Your task to perform on an android device: turn on notifications settings in the gmail app Image 0: 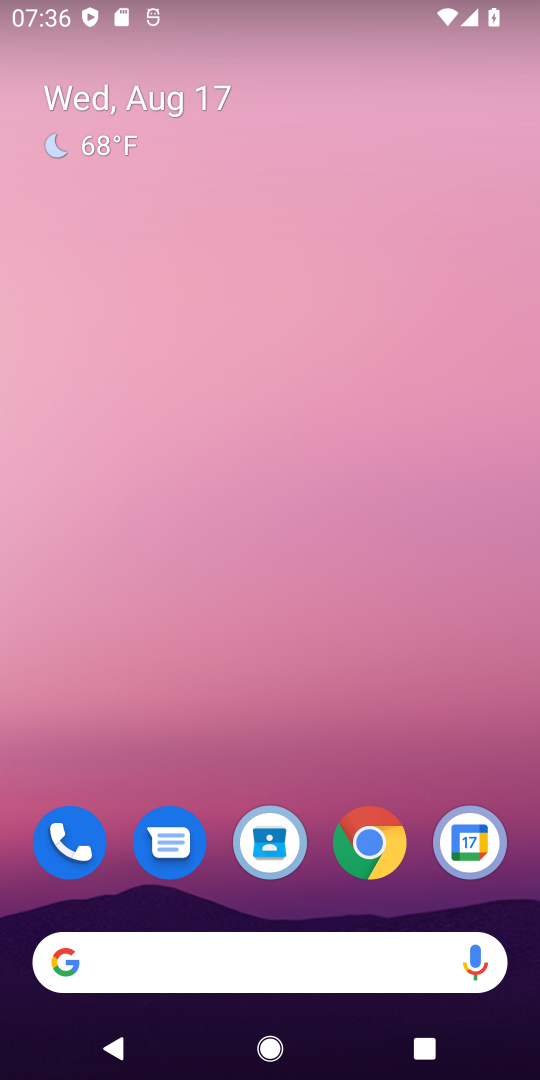
Step 0: drag from (330, 666) to (355, 0)
Your task to perform on an android device: turn on notifications settings in the gmail app Image 1: 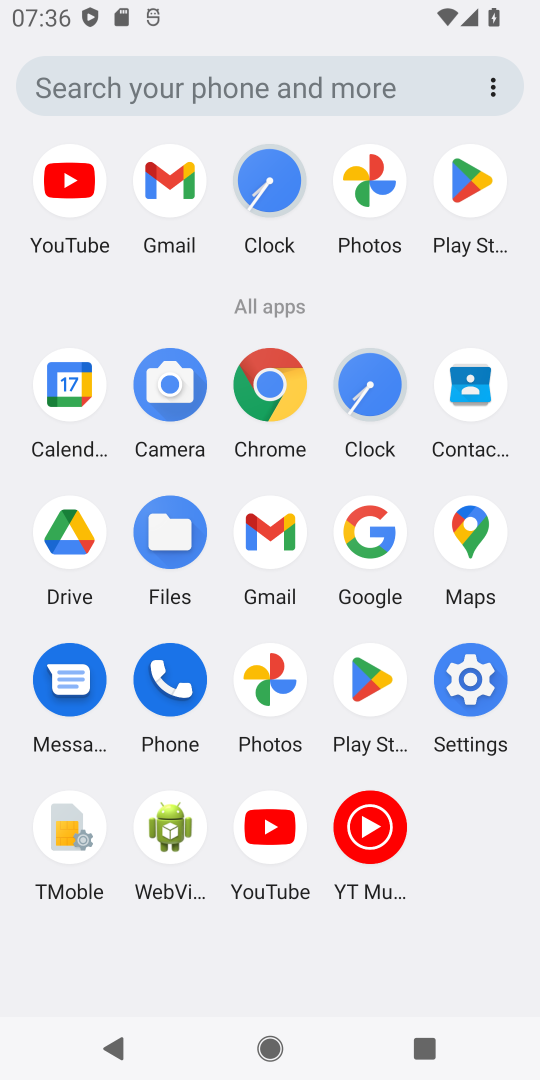
Step 1: click (167, 184)
Your task to perform on an android device: turn on notifications settings in the gmail app Image 2: 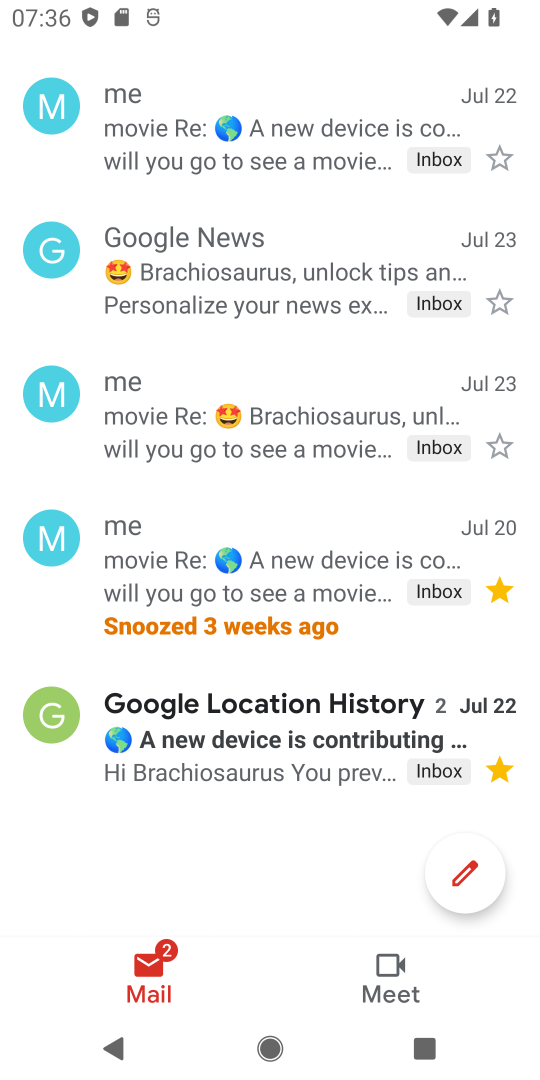
Step 2: drag from (244, 296) to (240, 699)
Your task to perform on an android device: turn on notifications settings in the gmail app Image 3: 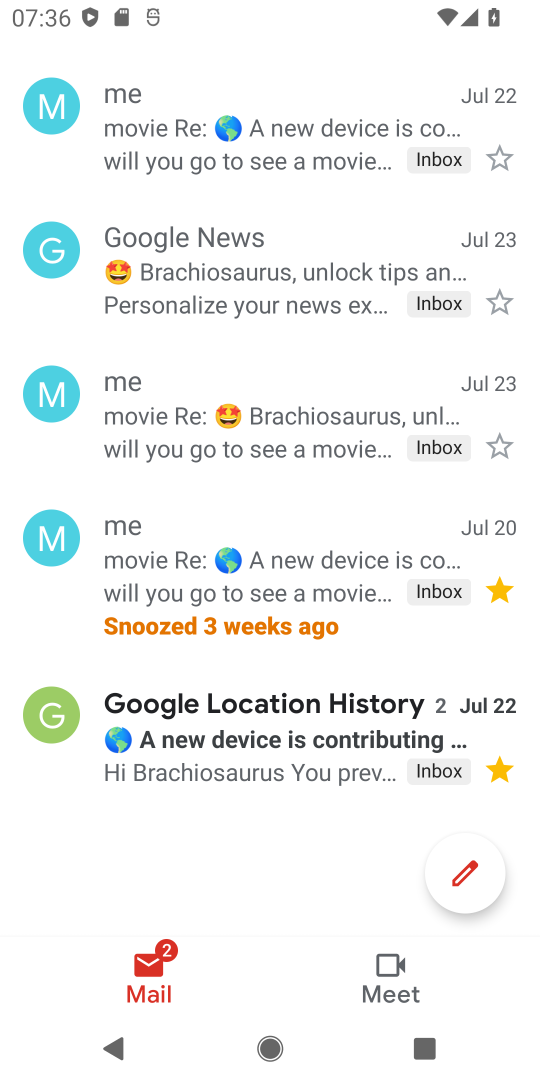
Step 3: drag from (308, 453) to (307, 848)
Your task to perform on an android device: turn on notifications settings in the gmail app Image 4: 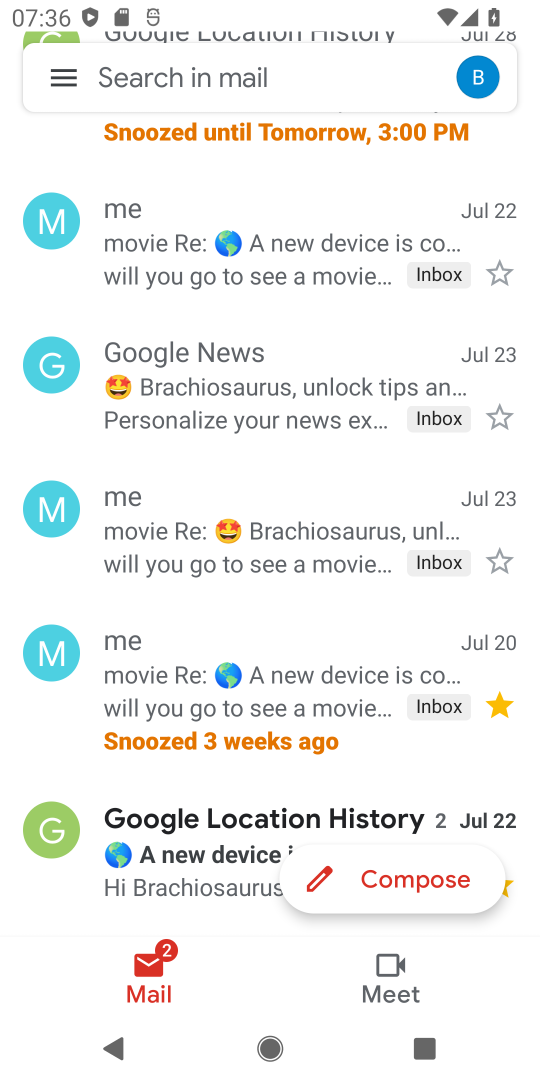
Step 4: drag from (298, 315) to (304, 846)
Your task to perform on an android device: turn on notifications settings in the gmail app Image 5: 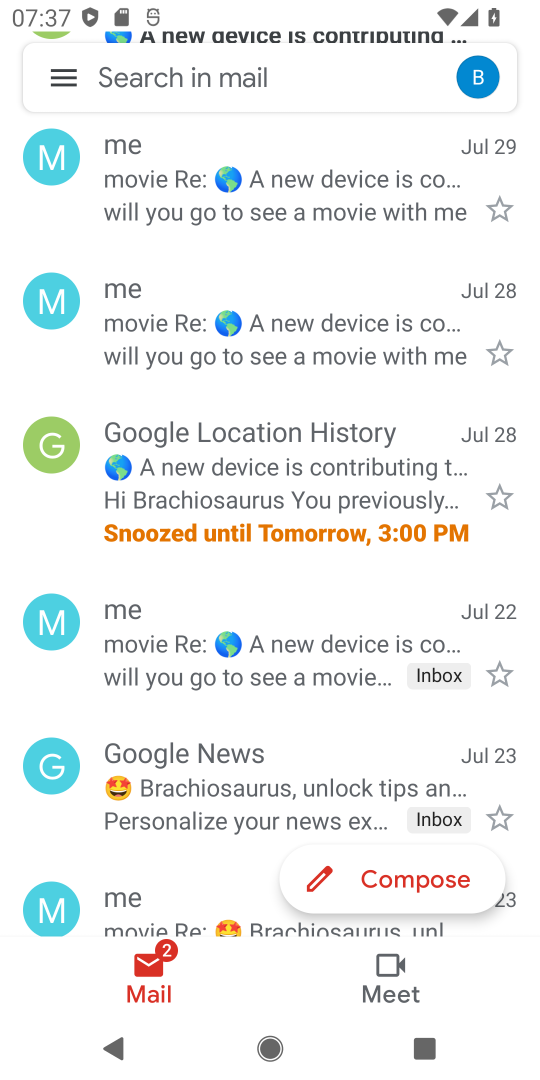
Step 5: drag from (266, 246) to (299, 747)
Your task to perform on an android device: turn on notifications settings in the gmail app Image 6: 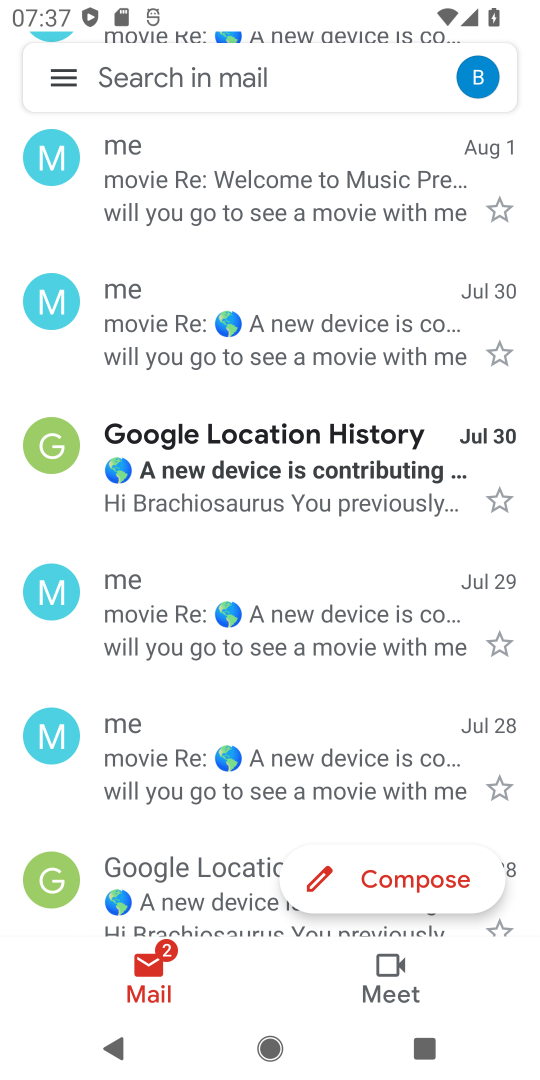
Step 6: click (62, 73)
Your task to perform on an android device: turn on notifications settings in the gmail app Image 7: 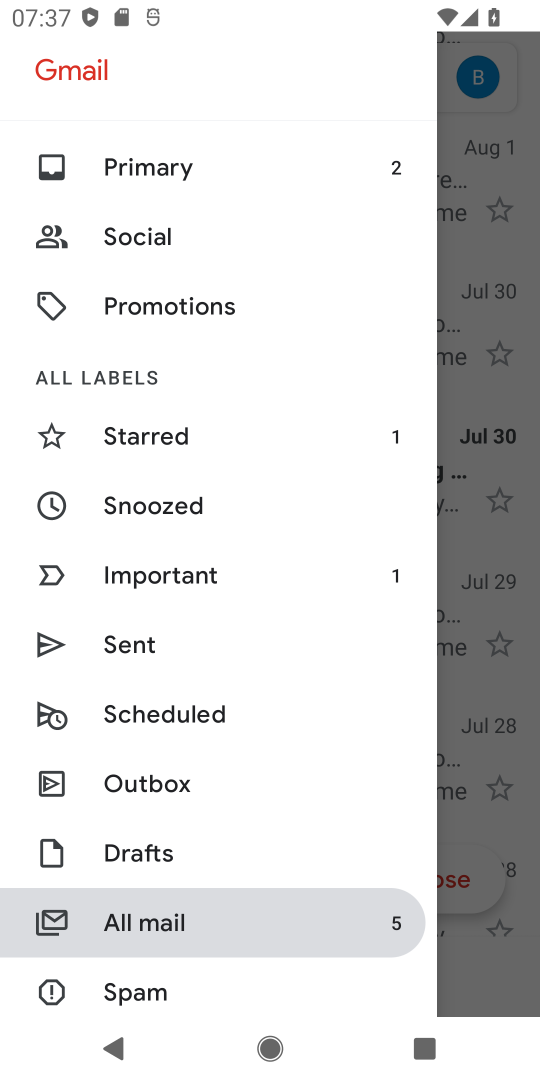
Step 7: drag from (203, 757) to (235, 14)
Your task to perform on an android device: turn on notifications settings in the gmail app Image 8: 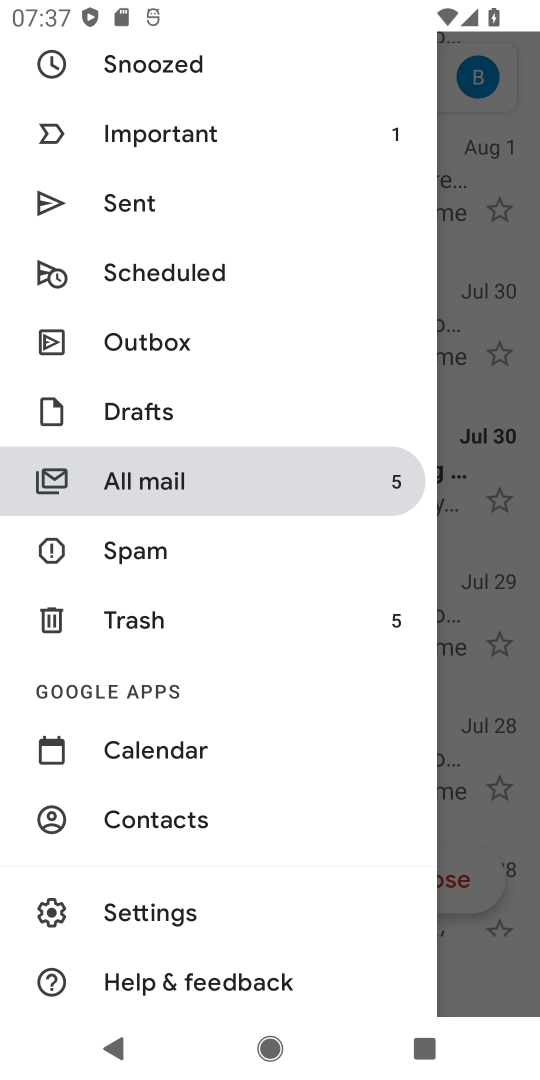
Step 8: click (180, 907)
Your task to perform on an android device: turn on notifications settings in the gmail app Image 9: 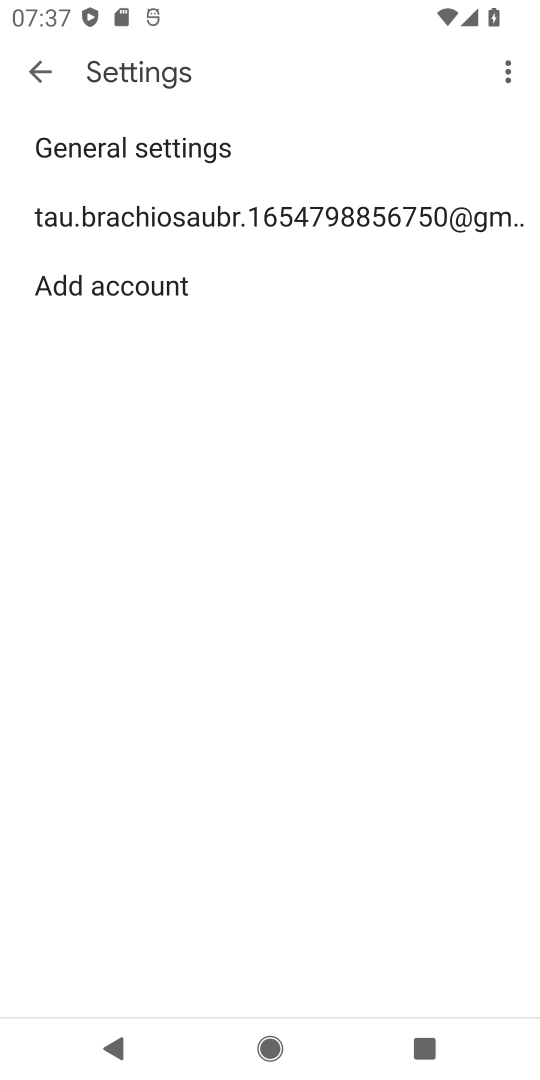
Step 9: click (327, 212)
Your task to perform on an android device: turn on notifications settings in the gmail app Image 10: 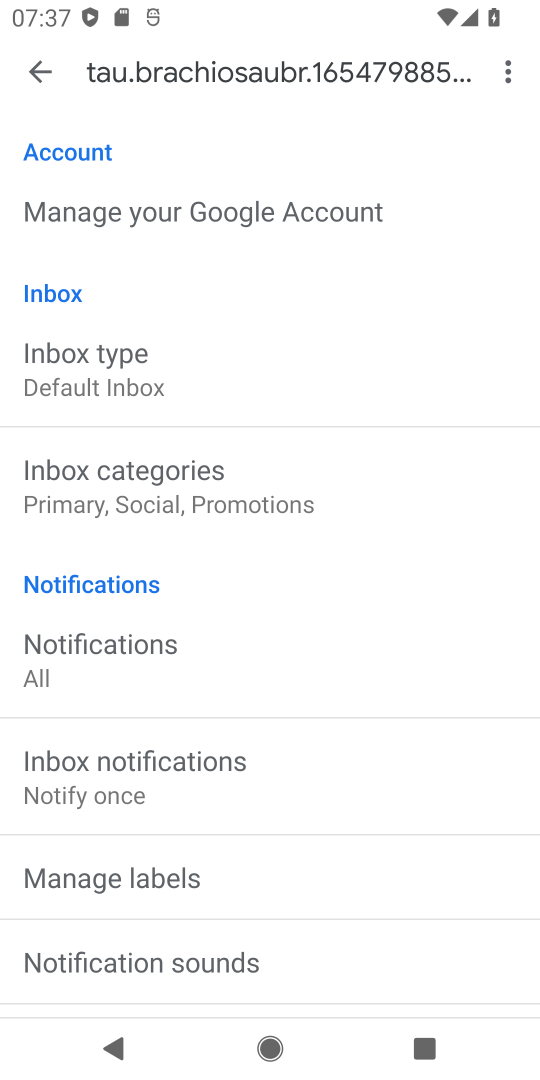
Step 10: drag from (274, 930) to (324, 182)
Your task to perform on an android device: turn on notifications settings in the gmail app Image 11: 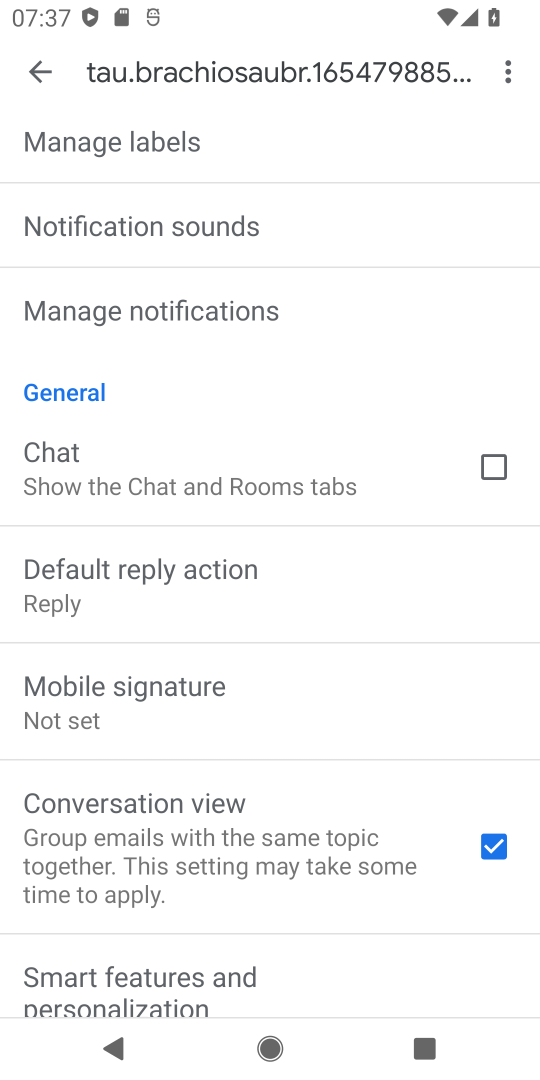
Step 11: click (316, 297)
Your task to perform on an android device: turn on notifications settings in the gmail app Image 12: 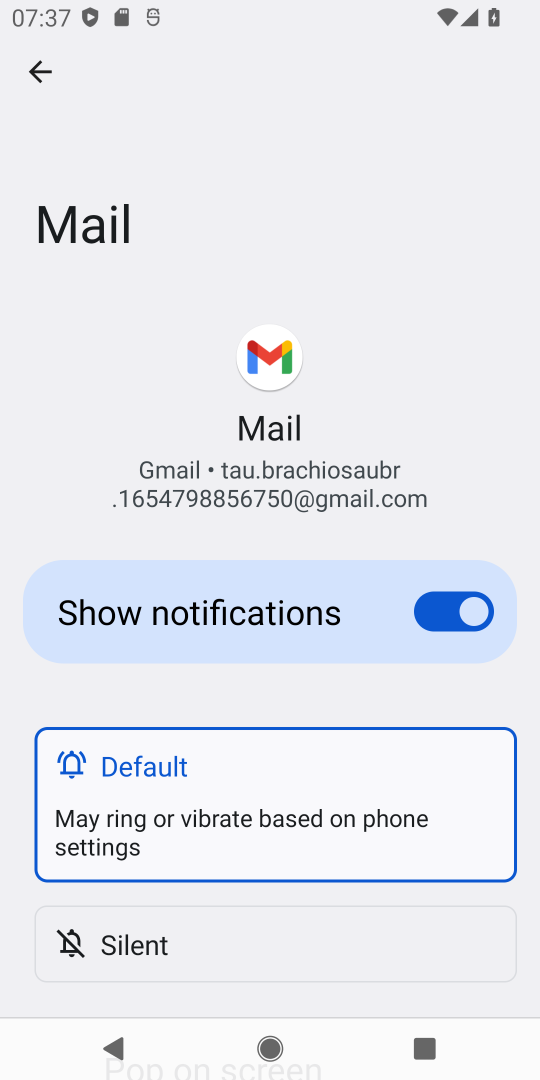
Step 12: task complete